Your task to perform on an android device: What is the recent news? Image 0: 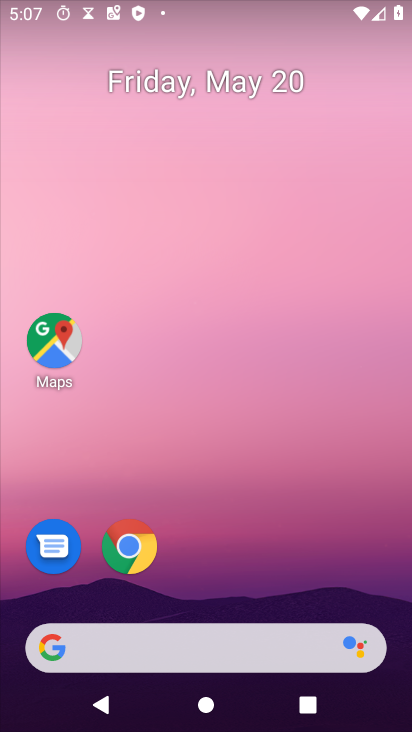
Step 0: drag from (238, 537) to (200, 33)
Your task to perform on an android device: What is the recent news? Image 1: 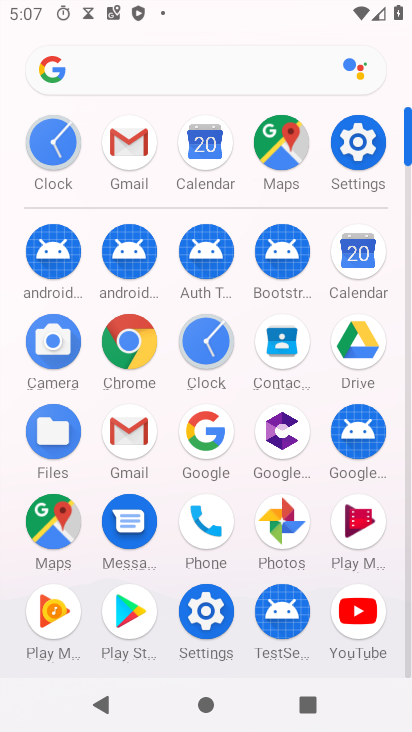
Step 1: click (200, 428)
Your task to perform on an android device: What is the recent news? Image 2: 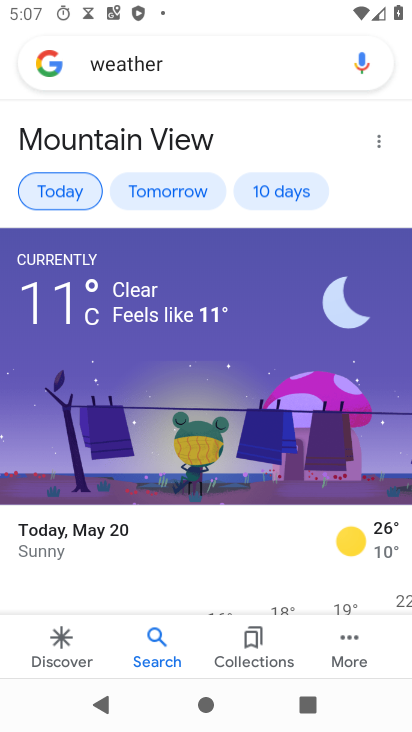
Step 2: click (162, 62)
Your task to perform on an android device: What is the recent news? Image 3: 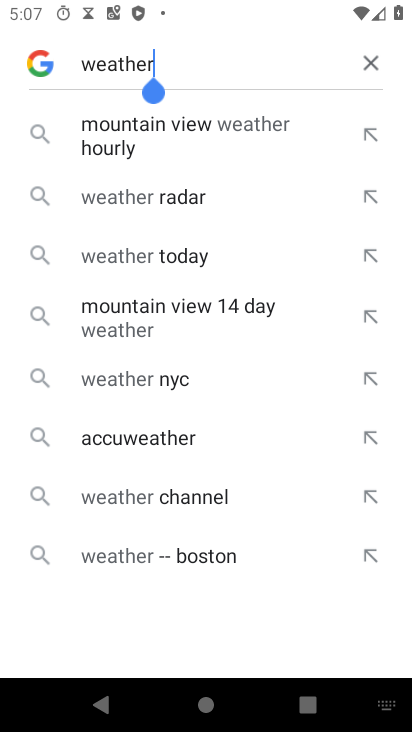
Step 3: click (365, 67)
Your task to perform on an android device: What is the recent news? Image 4: 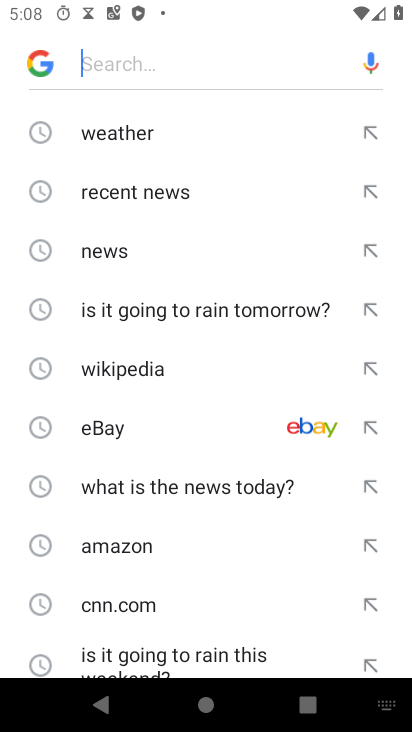
Step 4: type "recent news"
Your task to perform on an android device: What is the recent news? Image 5: 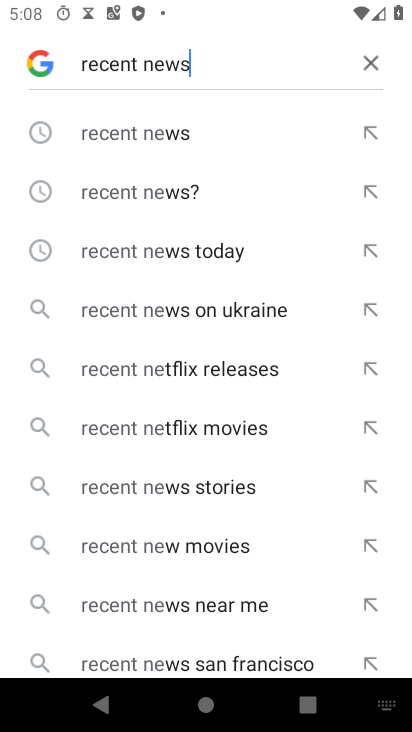
Step 5: type ""
Your task to perform on an android device: What is the recent news? Image 6: 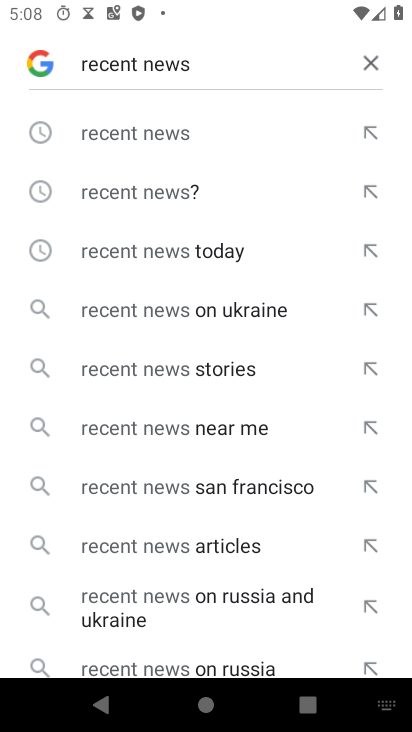
Step 6: click (123, 130)
Your task to perform on an android device: What is the recent news? Image 7: 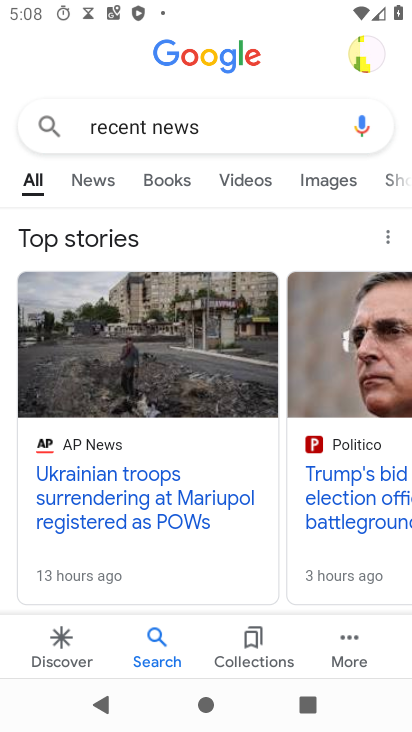
Step 7: drag from (349, 478) to (114, 526)
Your task to perform on an android device: What is the recent news? Image 8: 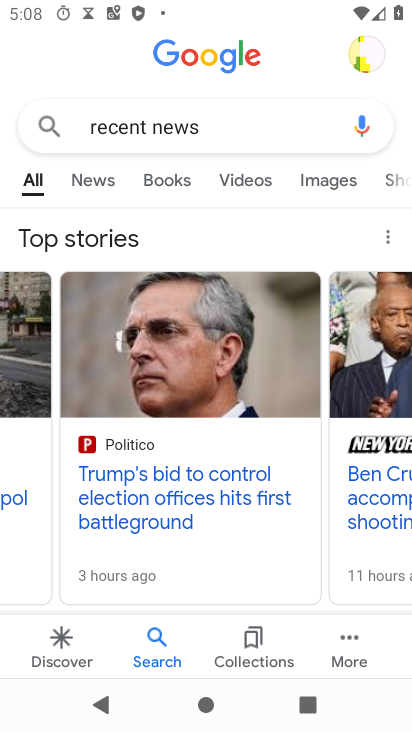
Step 8: drag from (371, 459) to (200, 488)
Your task to perform on an android device: What is the recent news? Image 9: 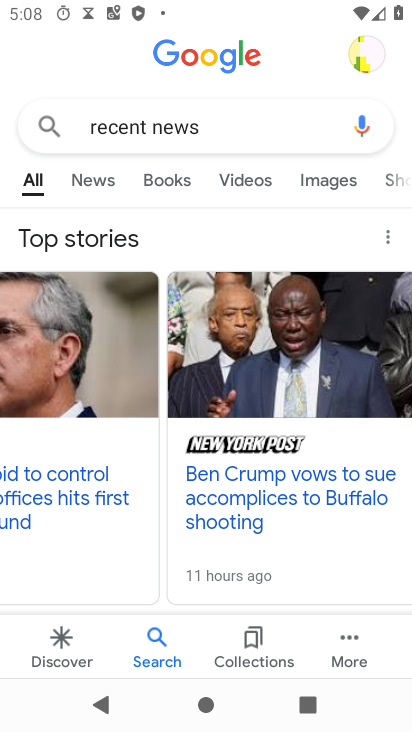
Step 9: drag from (219, 469) to (351, 479)
Your task to perform on an android device: What is the recent news? Image 10: 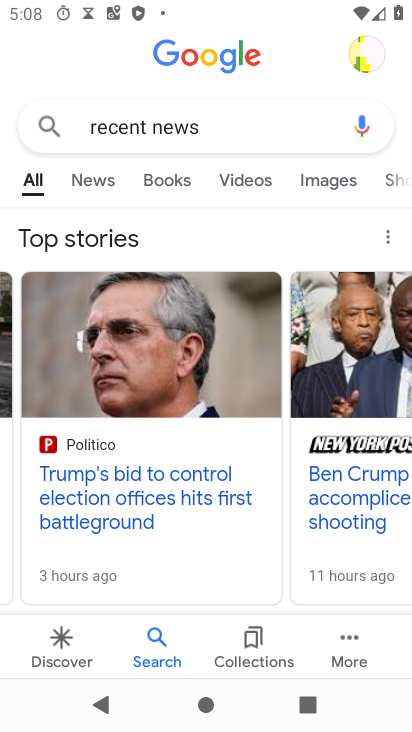
Step 10: click (152, 441)
Your task to perform on an android device: What is the recent news? Image 11: 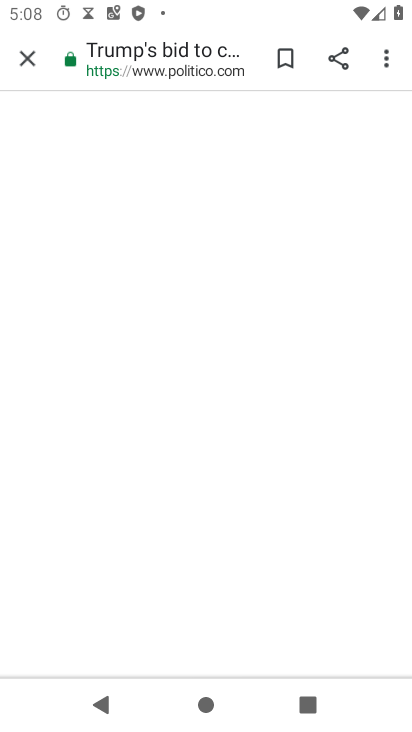
Step 11: task complete